Your task to perform on an android device: change timer sound Image 0: 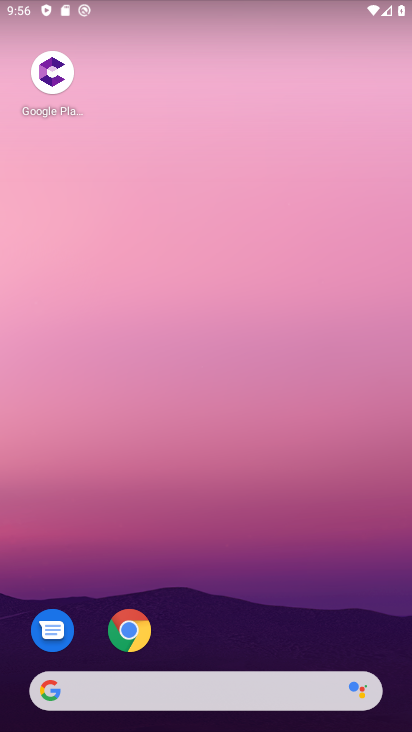
Step 0: press home button
Your task to perform on an android device: change timer sound Image 1: 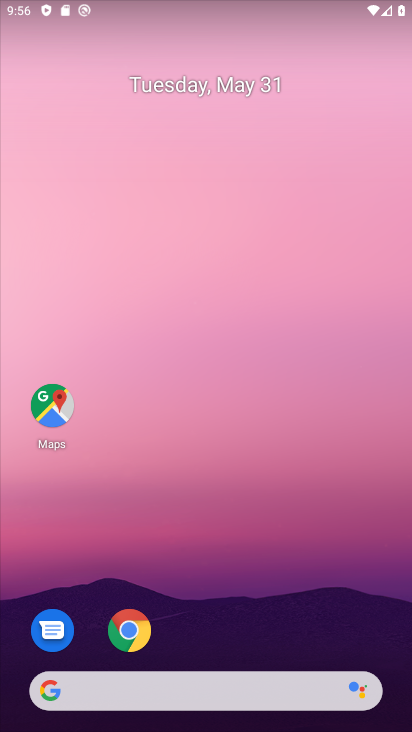
Step 1: drag from (297, 637) to (209, 120)
Your task to perform on an android device: change timer sound Image 2: 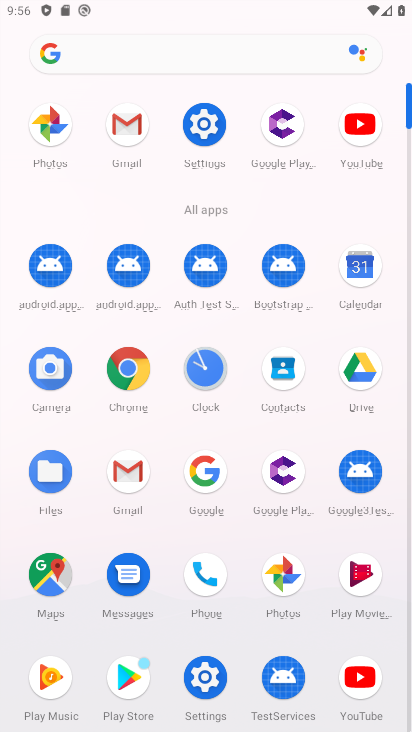
Step 2: click (201, 359)
Your task to perform on an android device: change timer sound Image 3: 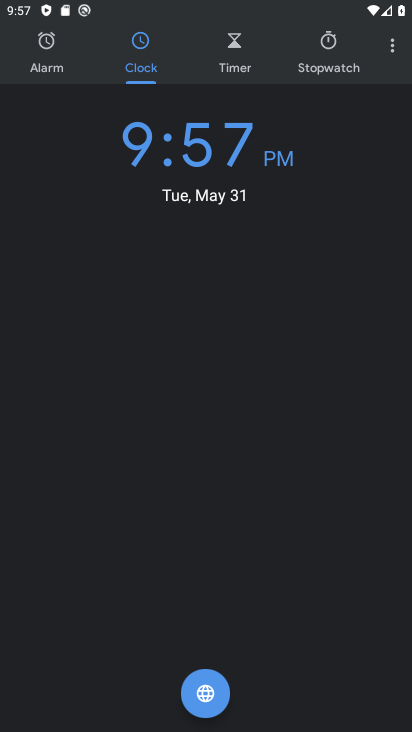
Step 3: click (394, 50)
Your task to perform on an android device: change timer sound Image 4: 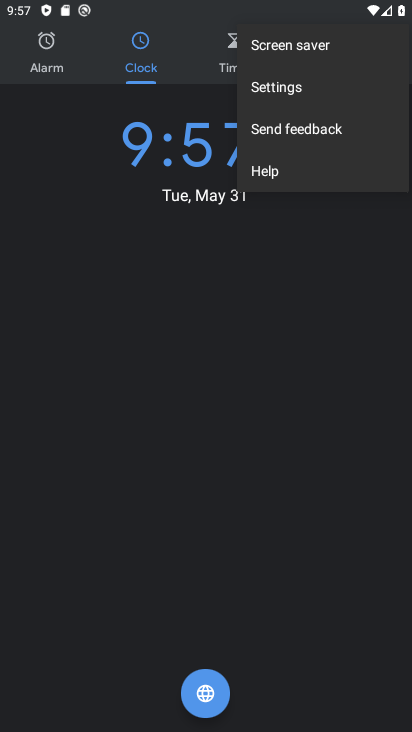
Step 4: click (276, 95)
Your task to perform on an android device: change timer sound Image 5: 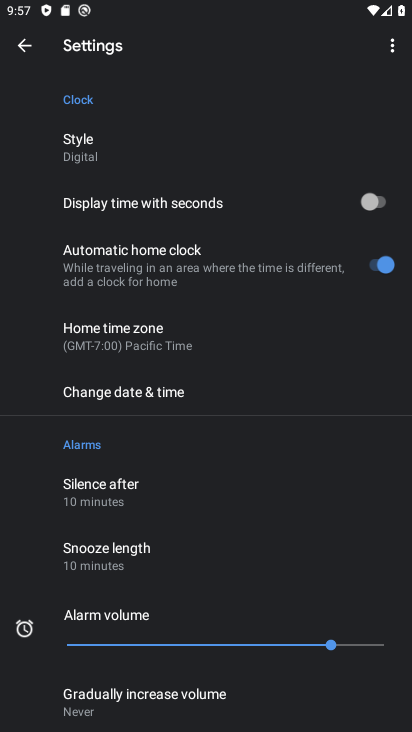
Step 5: drag from (298, 597) to (278, 94)
Your task to perform on an android device: change timer sound Image 6: 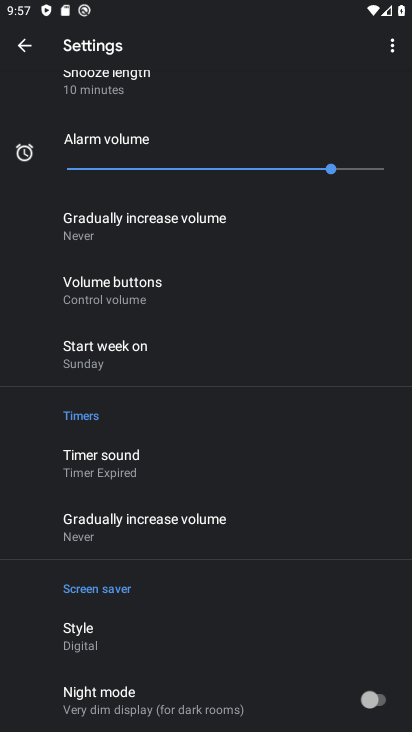
Step 6: drag from (307, 615) to (298, 115)
Your task to perform on an android device: change timer sound Image 7: 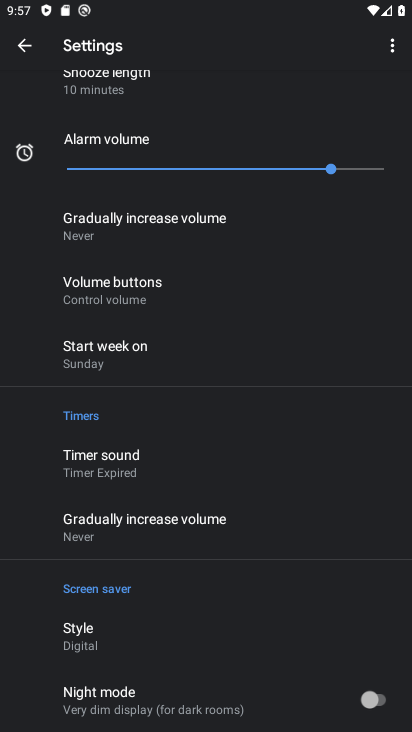
Step 7: click (89, 469)
Your task to perform on an android device: change timer sound Image 8: 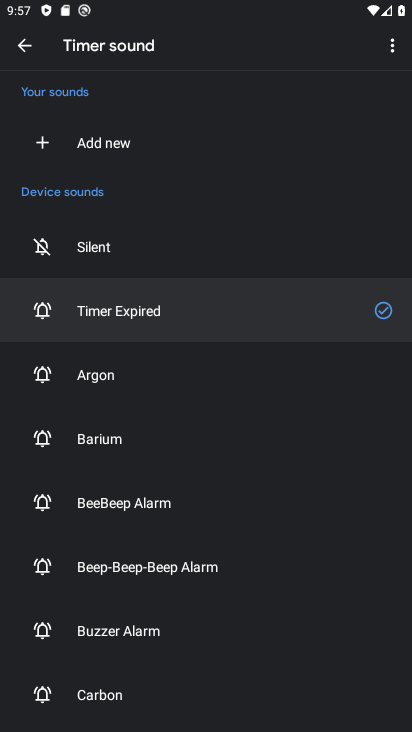
Step 8: click (95, 382)
Your task to perform on an android device: change timer sound Image 9: 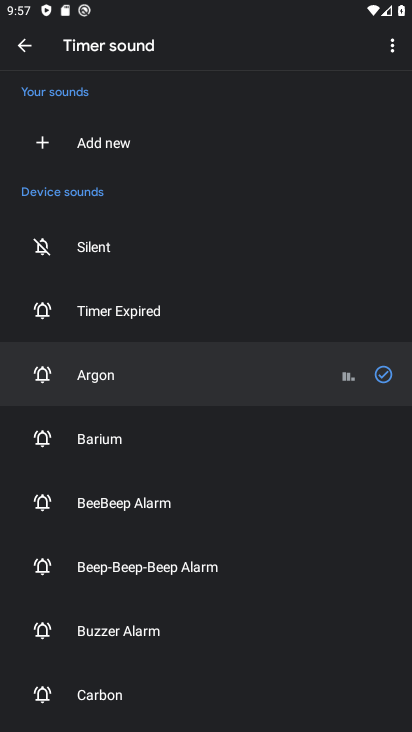
Step 9: task complete